Your task to perform on an android device: change timer sound Image 0: 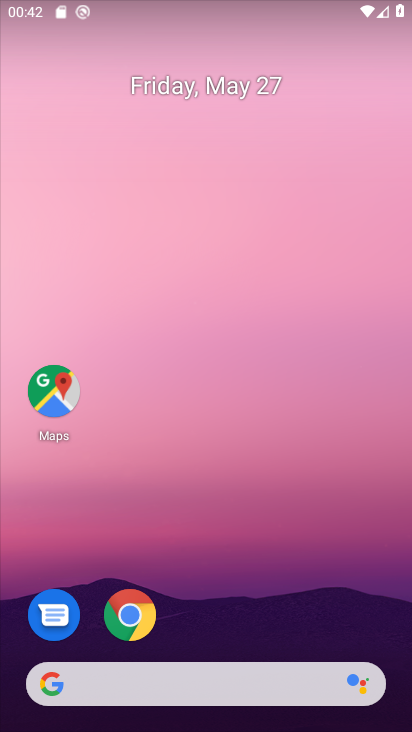
Step 0: drag from (359, 606) to (373, 274)
Your task to perform on an android device: change timer sound Image 1: 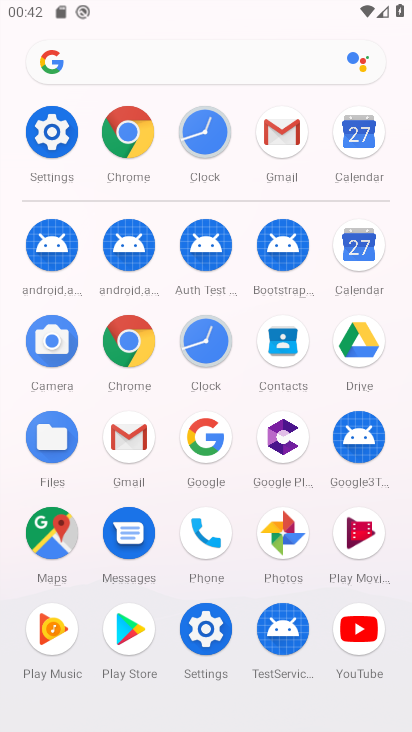
Step 1: click (200, 353)
Your task to perform on an android device: change timer sound Image 2: 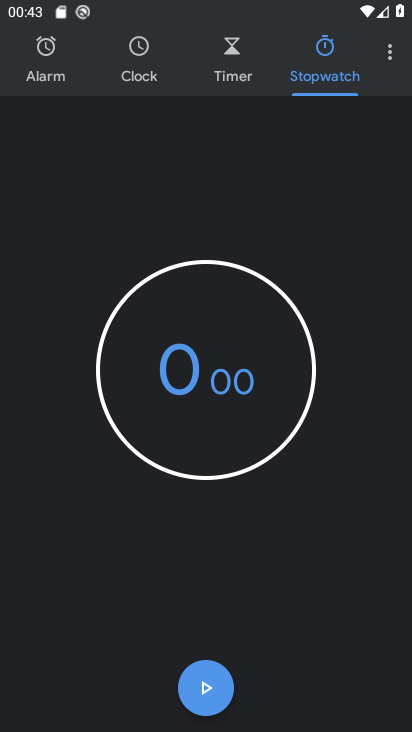
Step 2: click (387, 53)
Your task to perform on an android device: change timer sound Image 3: 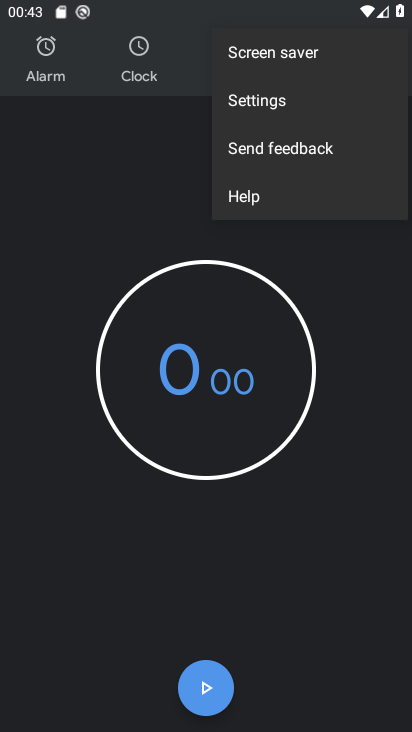
Step 3: click (271, 112)
Your task to perform on an android device: change timer sound Image 4: 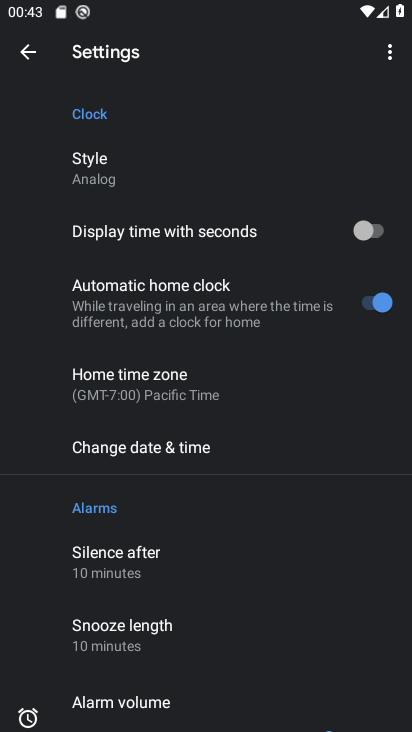
Step 4: drag from (289, 476) to (287, 352)
Your task to perform on an android device: change timer sound Image 5: 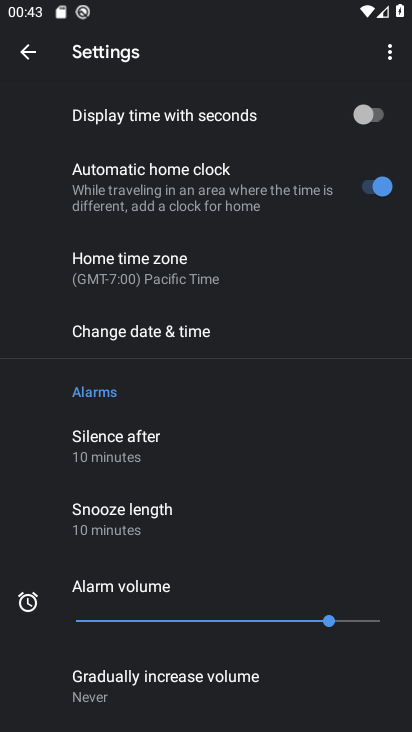
Step 5: drag from (313, 489) to (317, 375)
Your task to perform on an android device: change timer sound Image 6: 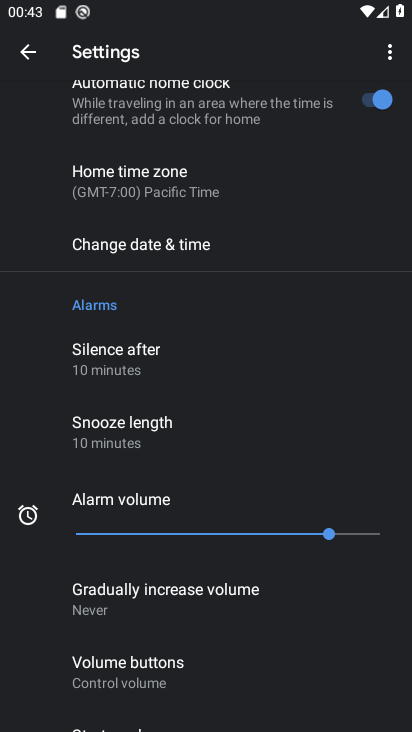
Step 6: drag from (288, 471) to (289, 381)
Your task to perform on an android device: change timer sound Image 7: 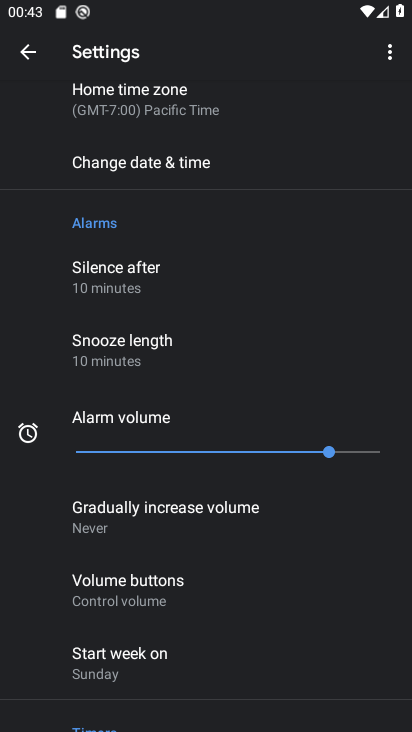
Step 7: drag from (296, 530) to (287, 423)
Your task to perform on an android device: change timer sound Image 8: 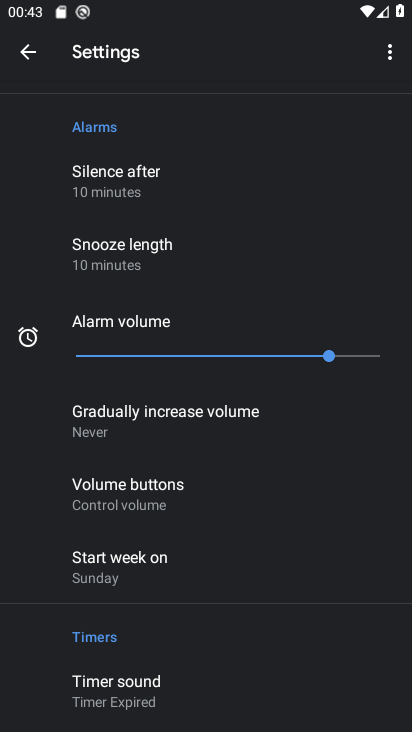
Step 8: drag from (284, 533) to (281, 414)
Your task to perform on an android device: change timer sound Image 9: 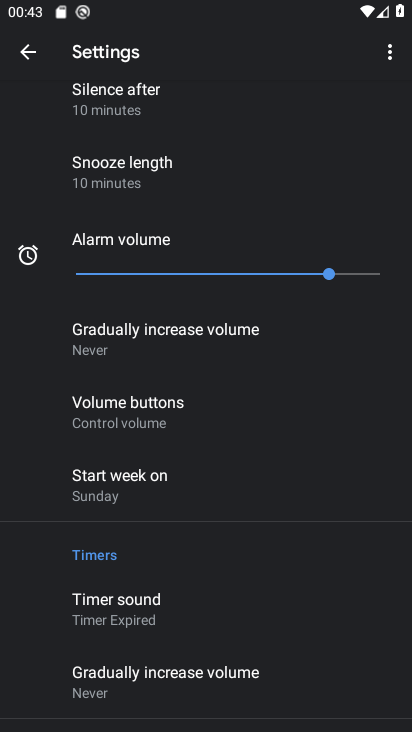
Step 9: drag from (296, 549) to (295, 437)
Your task to perform on an android device: change timer sound Image 10: 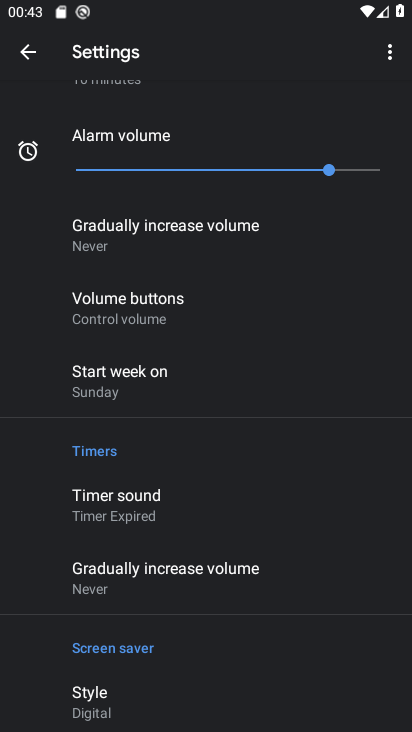
Step 10: drag from (318, 587) to (318, 450)
Your task to perform on an android device: change timer sound Image 11: 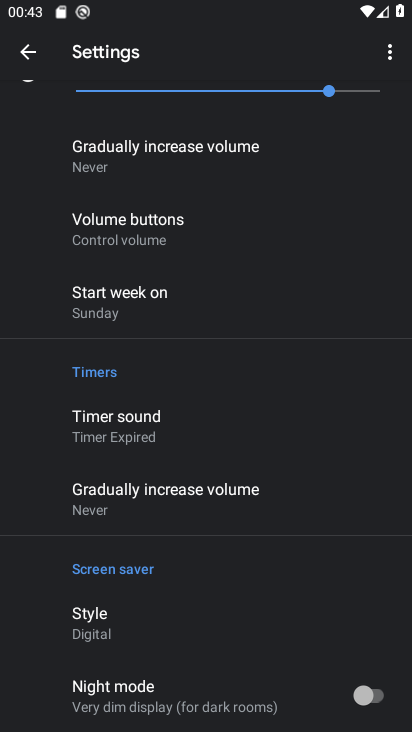
Step 11: click (193, 438)
Your task to perform on an android device: change timer sound Image 12: 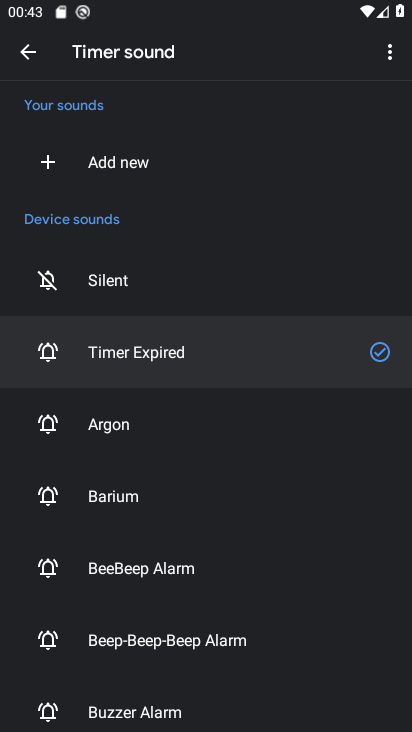
Step 12: click (188, 567)
Your task to perform on an android device: change timer sound Image 13: 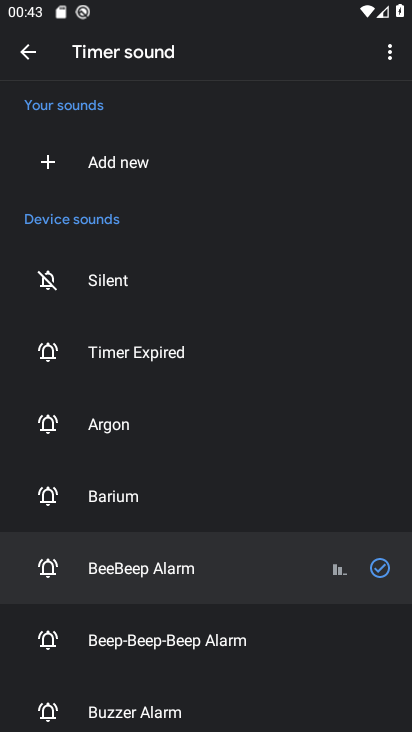
Step 13: task complete